Your task to perform on an android device: open app "DoorDash - Food Delivery" (install if not already installed) Image 0: 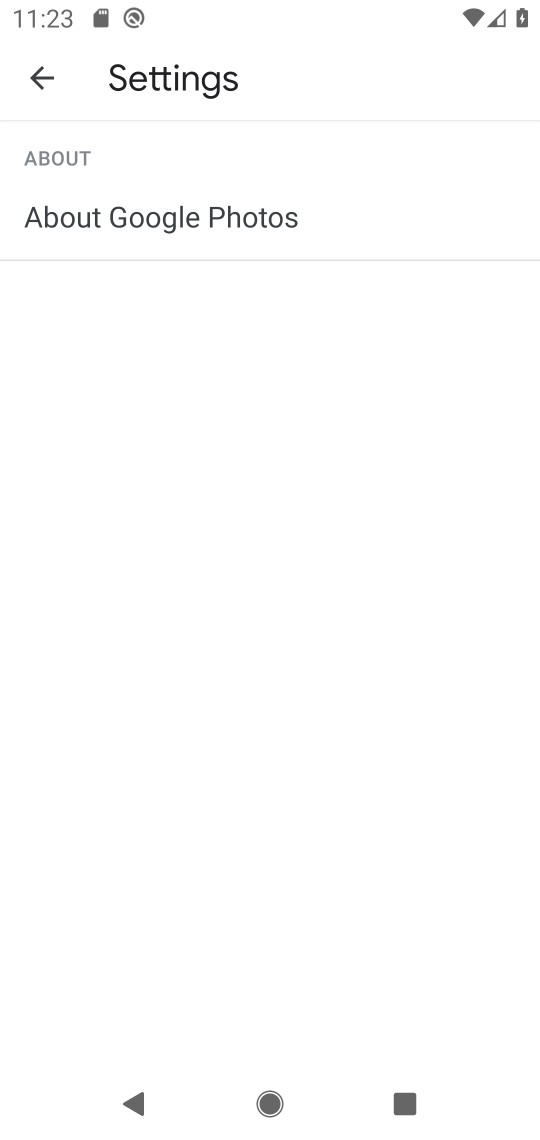
Step 0: press home button
Your task to perform on an android device: open app "DoorDash - Food Delivery" (install if not already installed) Image 1: 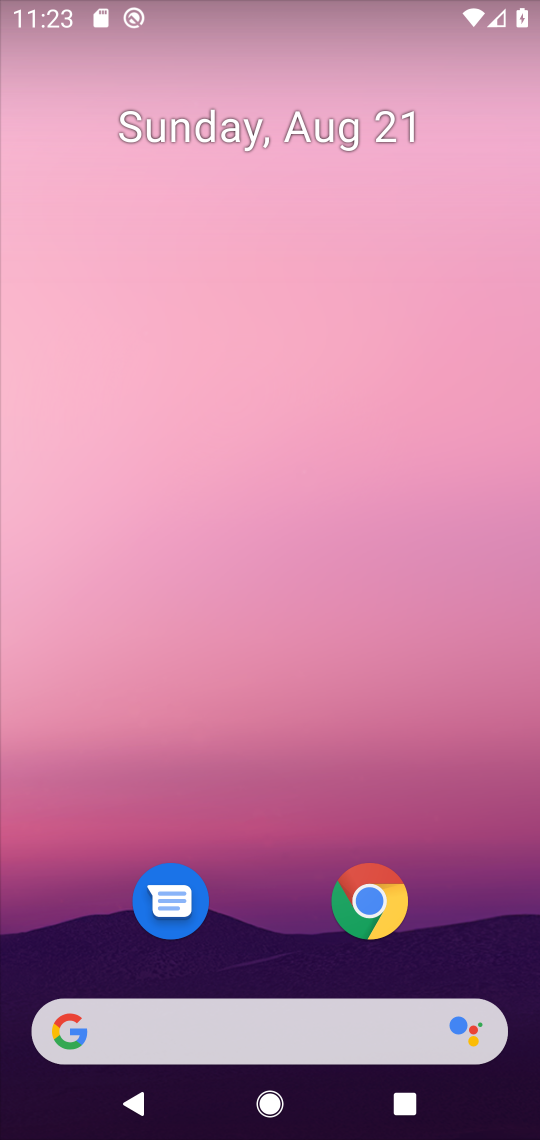
Step 1: drag from (265, 964) to (317, 58)
Your task to perform on an android device: open app "DoorDash - Food Delivery" (install if not already installed) Image 2: 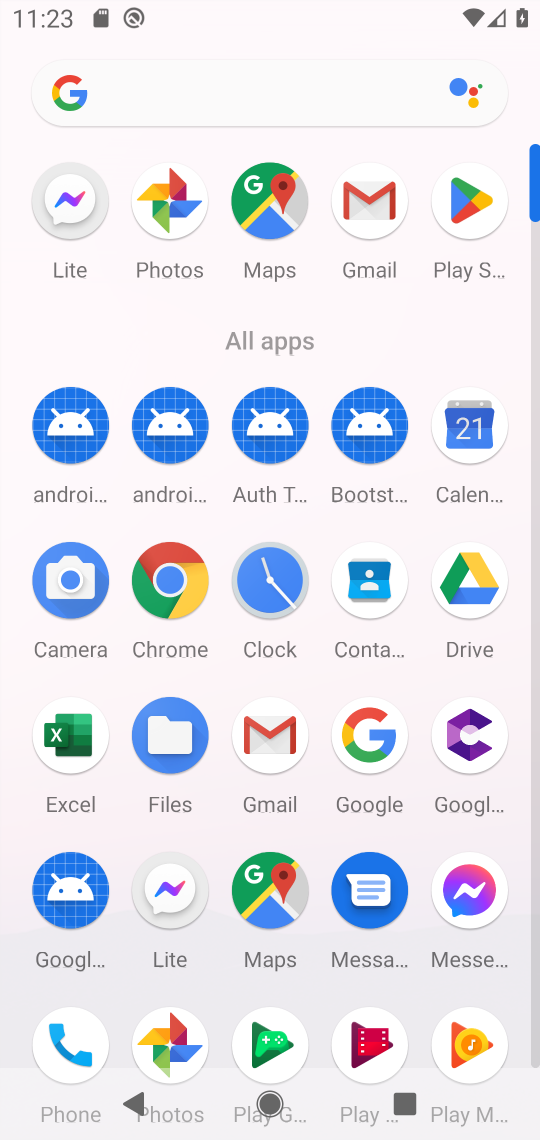
Step 2: click (446, 239)
Your task to perform on an android device: open app "DoorDash - Food Delivery" (install if not already installed) Image 3: 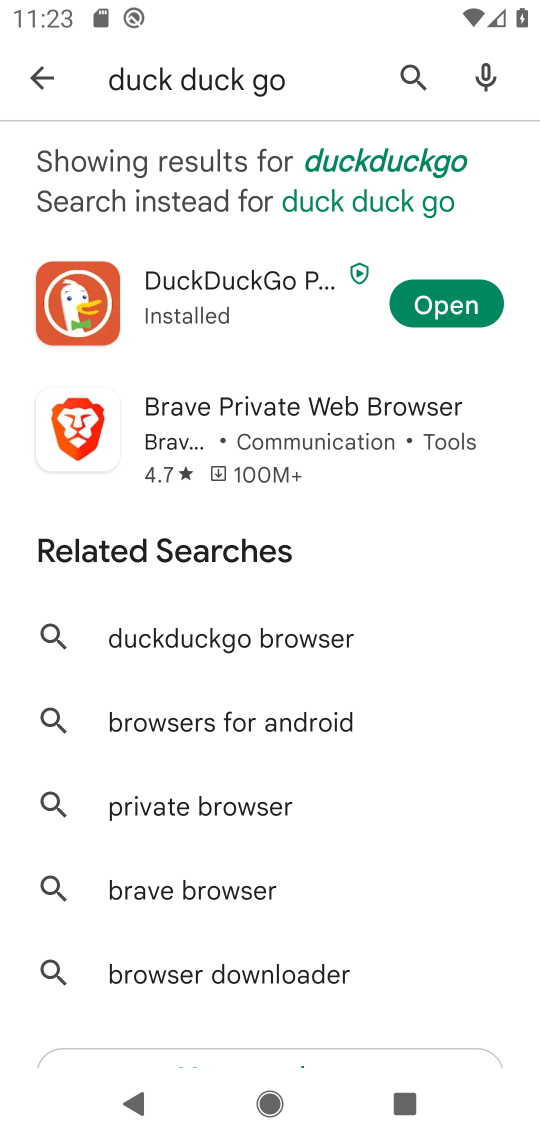
Step 3: click (421, 85)
Your task to perform on an android device: open app "DoorDash - Food Delivery" (install if not already installed) Image 4: 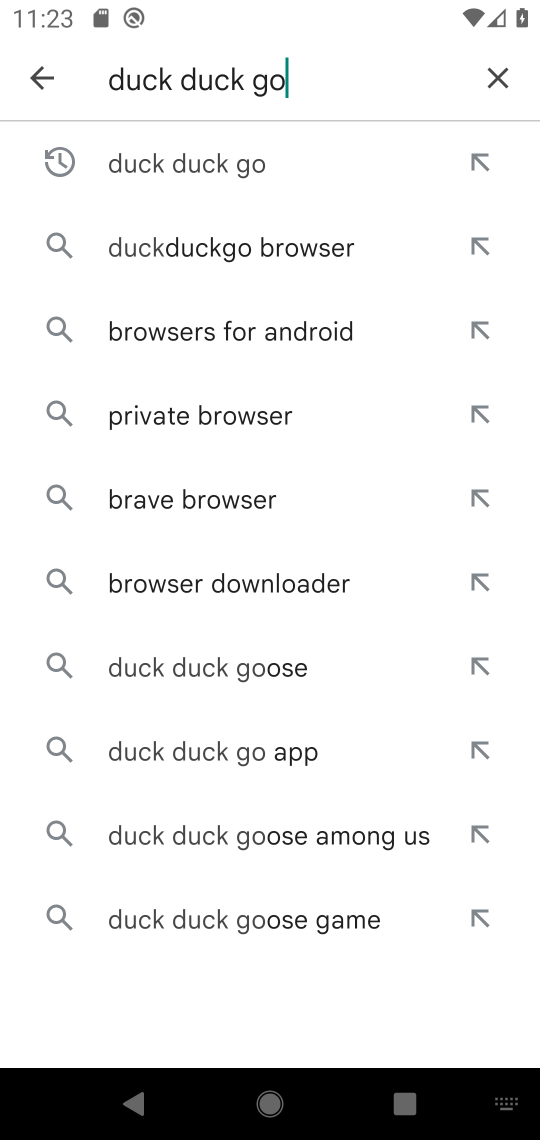
Step 4: click (483, 80)
Your task to perform on an android device: open app "DoorDash - Food Delivery" (install if not already installed) Image 5: 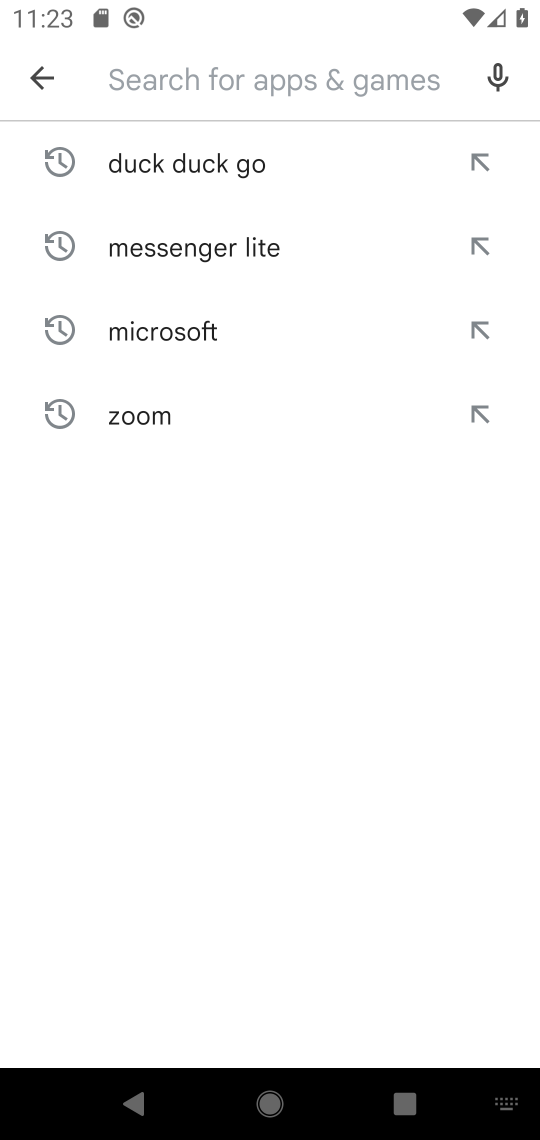
Step 5: type "doordash"
Your task to perform on an android device: open app "DoorDash - Food Delivery" (install if not already installed) Image 6: 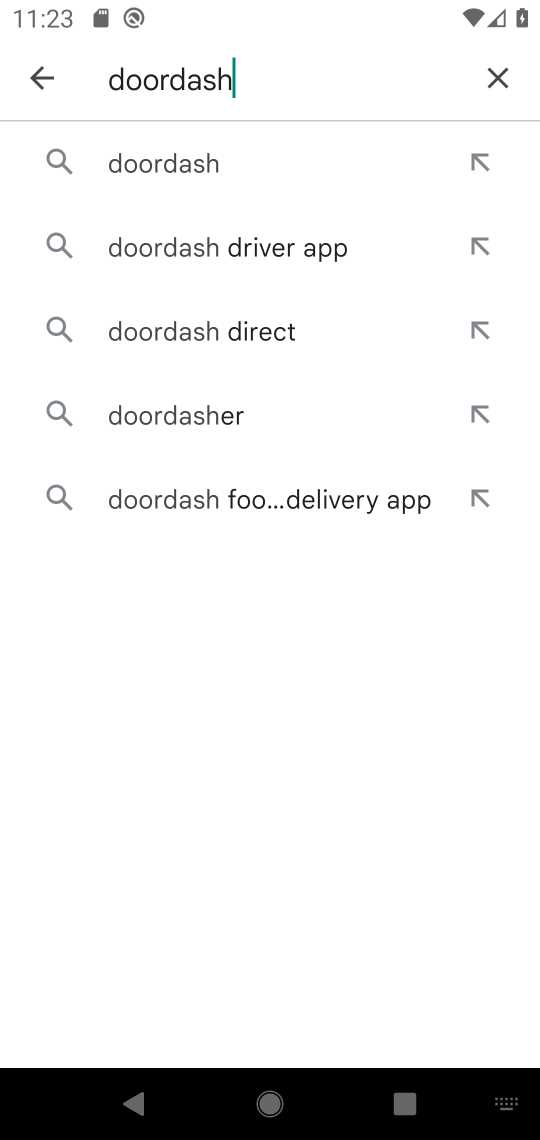
Step 6: click (271, 182)
Your task to perform on an android device: open app "DoorDash - Food Delivery" (install if not already installed) Image 7: 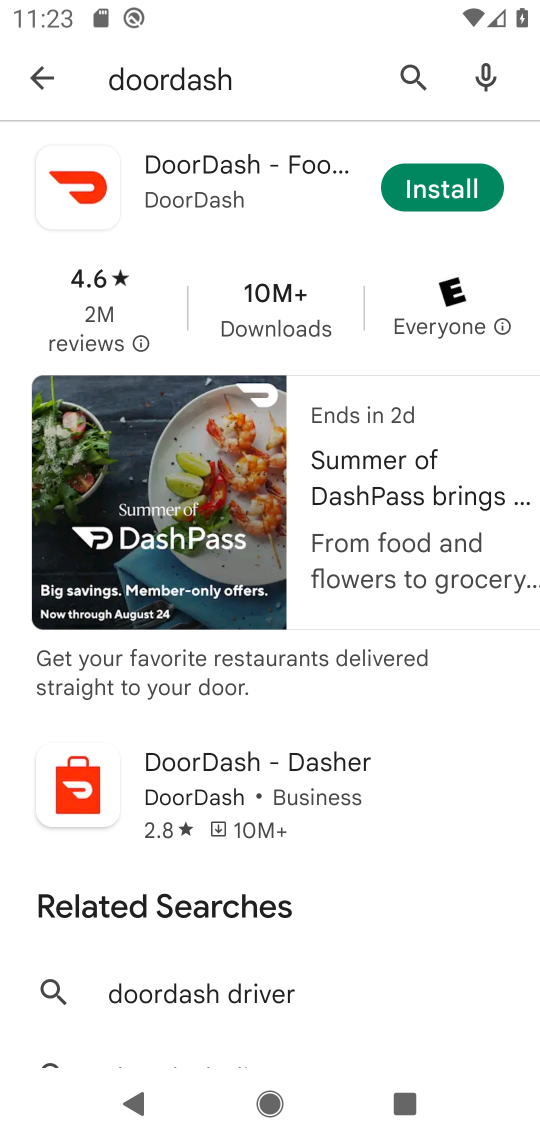
Step 7: click (428, 198)
Your task to perform on an android device: open app "DoorDash - Food Delivery" (install if not already installed) Image 8: 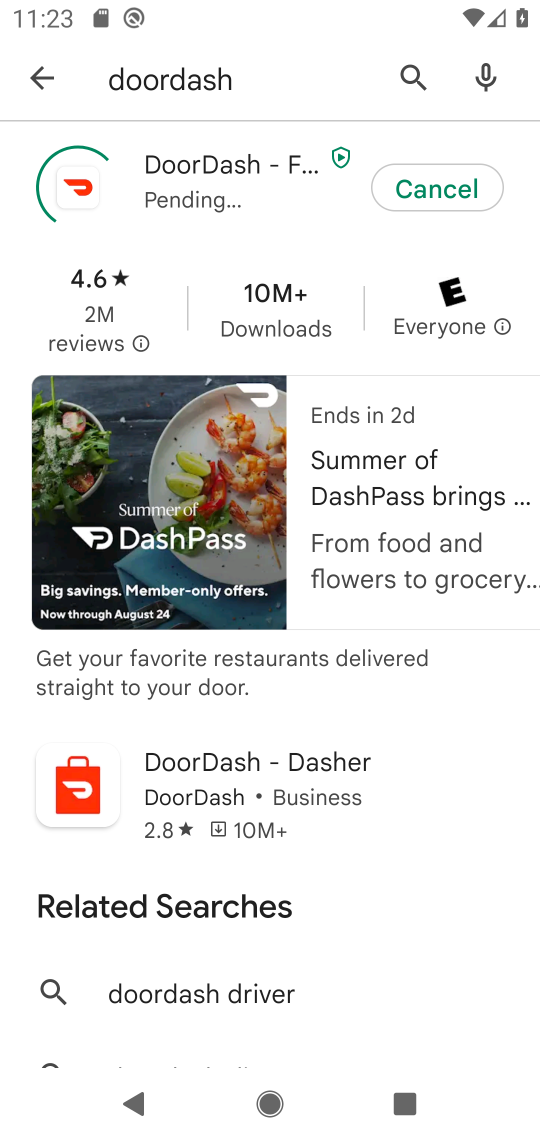
Step 8: task complete